Your task to perform on an android device: turn on data saver in the chrome app Image 0: 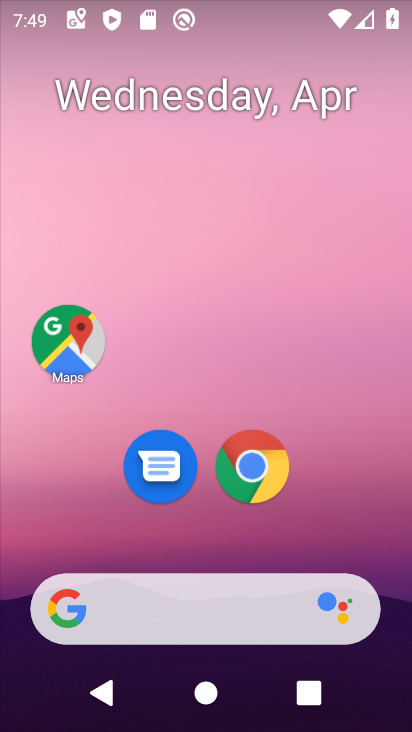
Step 0: click (308, 179)
Your task to perform on an android device: turn on data saver in the chrome app Image 1: 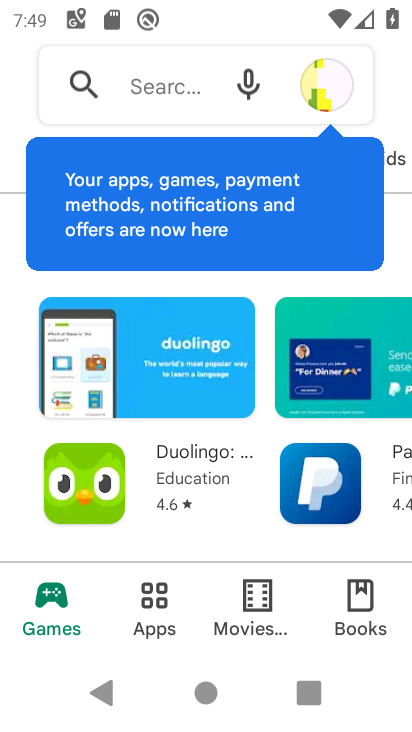
Step 1: press home button
Your task to perform on an android device: turn on data saver in the chrome app Image 2: 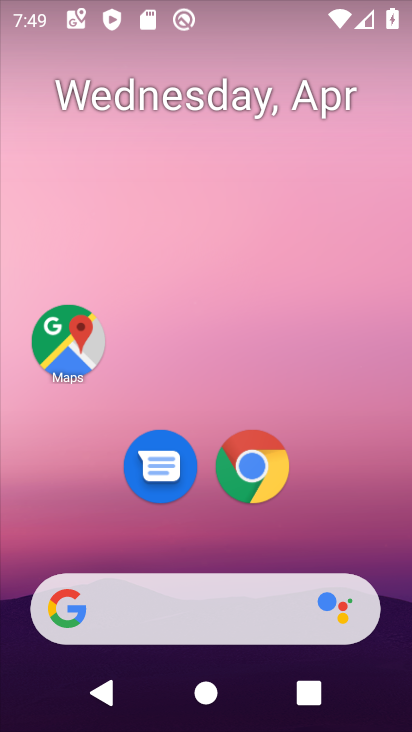
Step 2: click (271, 492)
Your task to perform on an android device: turn on data saver in the chrome app Image 3: 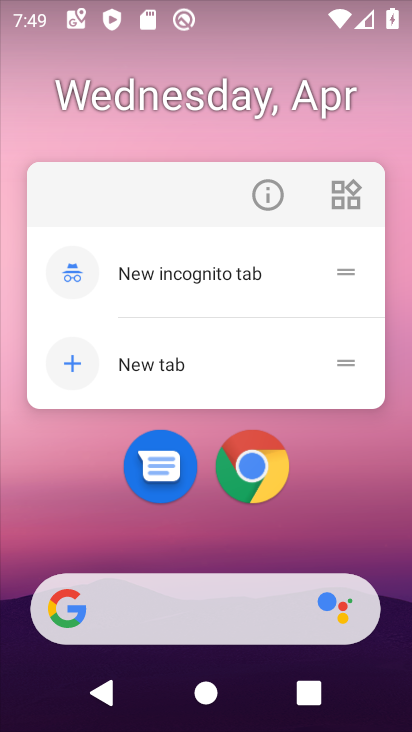
Step 3: click (171, 362)
Your task to perform on an android device: turn on data saver in the chrome app Image 4: 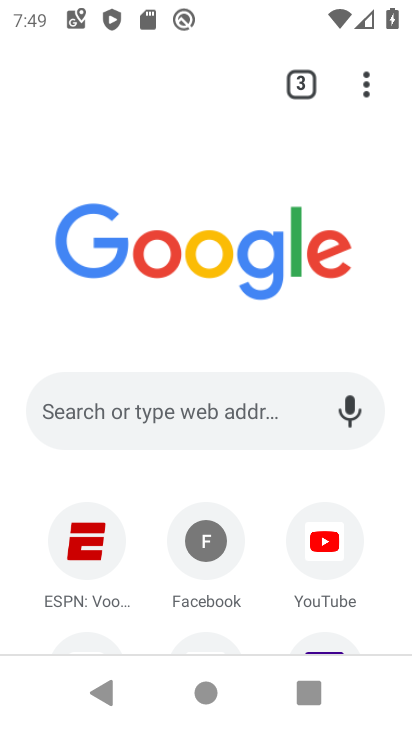
Step 4: click (364, 86)
Your task to perform on an android device: turn on data saver in the chrome app Image 5: 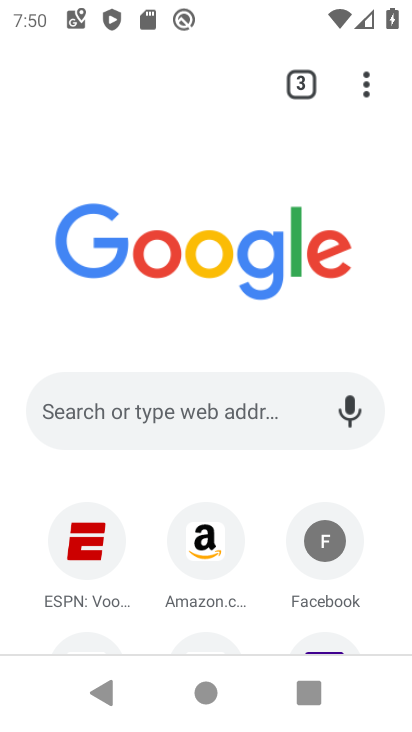
Step 5: click (364, 85)
Your task to perform on an android device: turn on data saver in the chrome app Image 6: 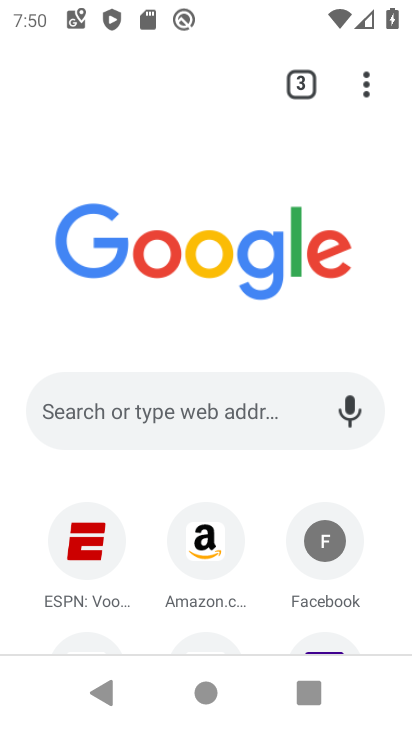
Step 6: click (369, 82)
Your task to perform on an android device: turn on data saver in the chrome app Image 7: 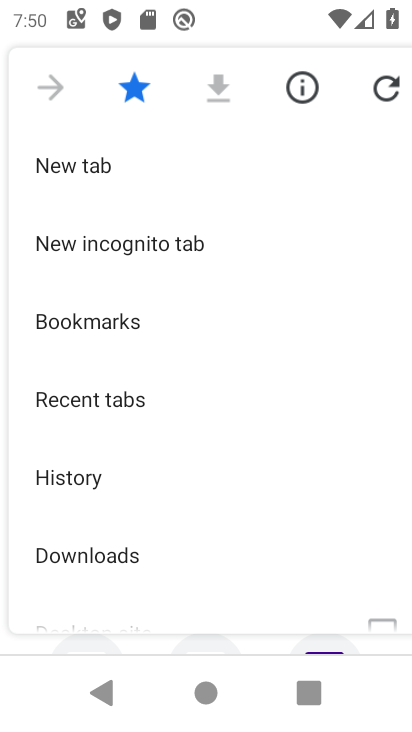
Step 7: drag from (218, 568) to (189, 236)
Your task to perform on an android device: turn on data saver in the chrome app Image 8: 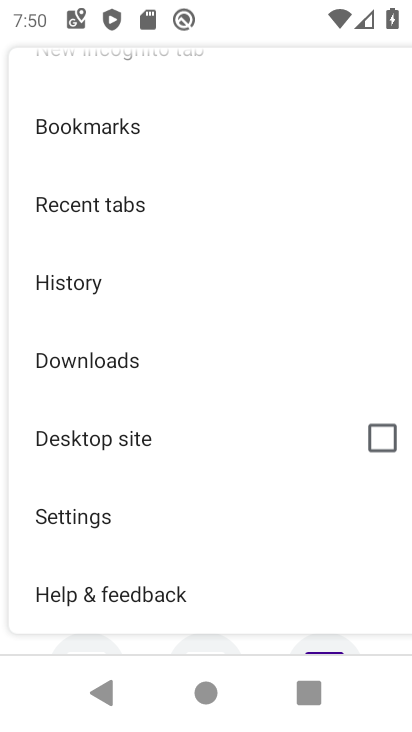
Step 8: click (101, 524)
Your task to perform on an android device: turn on data saver in the chrome app Image 9: 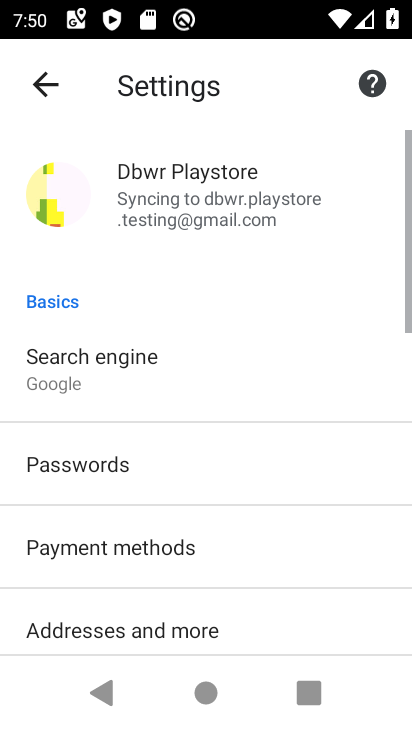
Step 9: drag from (165, 555) to (186, 222)
Your task to perform on an android device: turn on data saver in the chrome app Image 10: 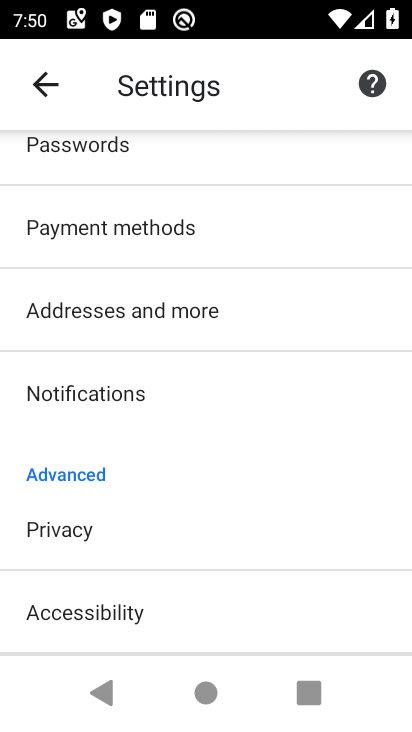
Step 10: drag from (191, 579) to (238, 187)
Your task to perform on an android device: turn on data saver in the chrome app Image 11: 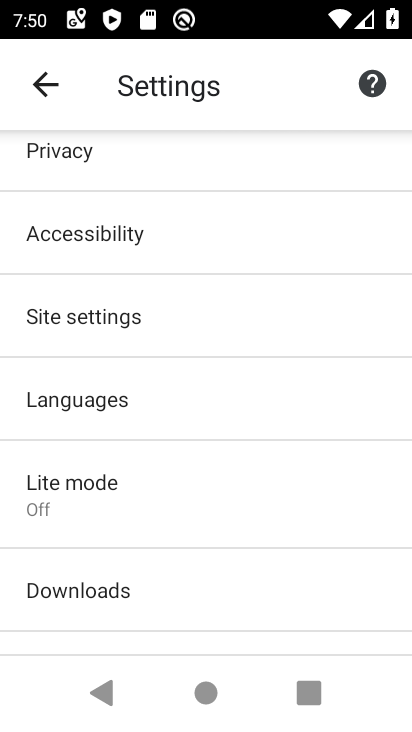
Step 11: click (107, 511)
Your task to perform on an android device: turn on data saver in the chrome app Image 12: 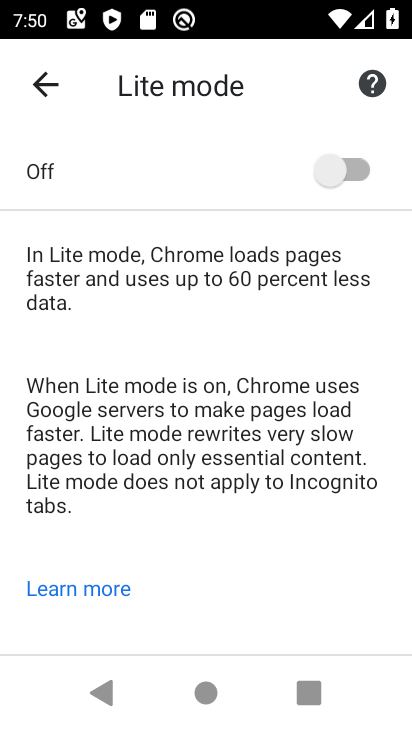
Step 12: click (365, 173)
Your task to perform on an android device: turn on data saver in the chrome app Image 13: 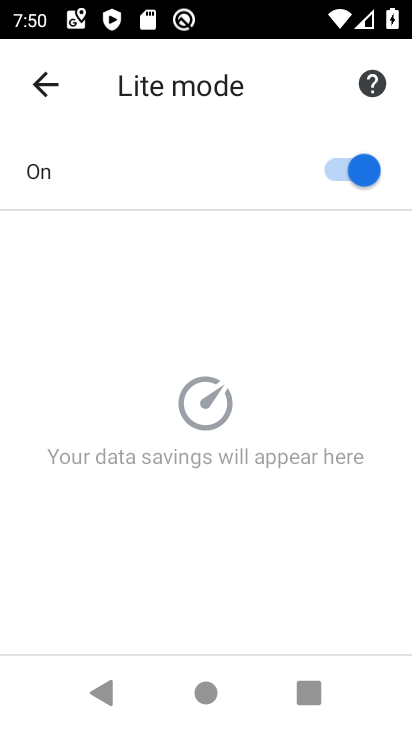
Step 13: task complete